Your task to perform on an android device: change the clock display to show seconds Image 0: 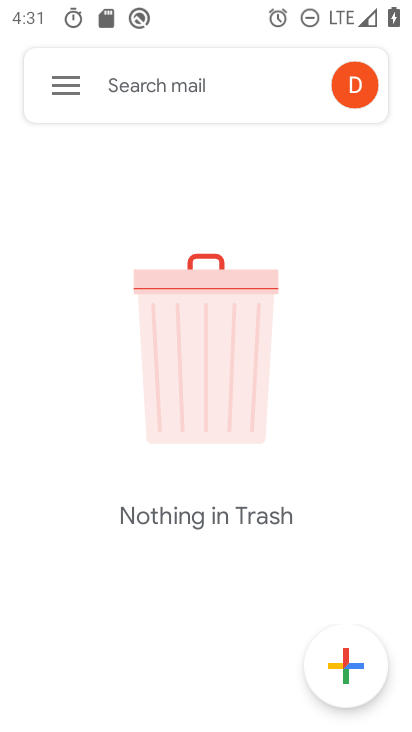
Step 0: press home button
Your task to perform on an android device: change the clock display to show seconds Image 1: 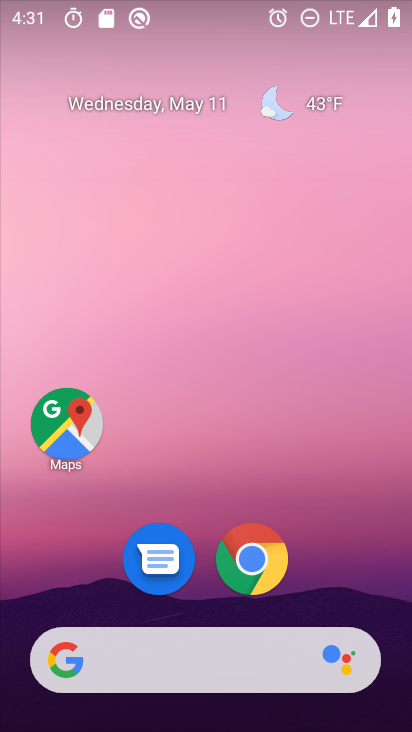
Step 1: drag from (319, 505) to (203, 63)
Your task to perform on an android device: change the clock display to show seconds Image 2: 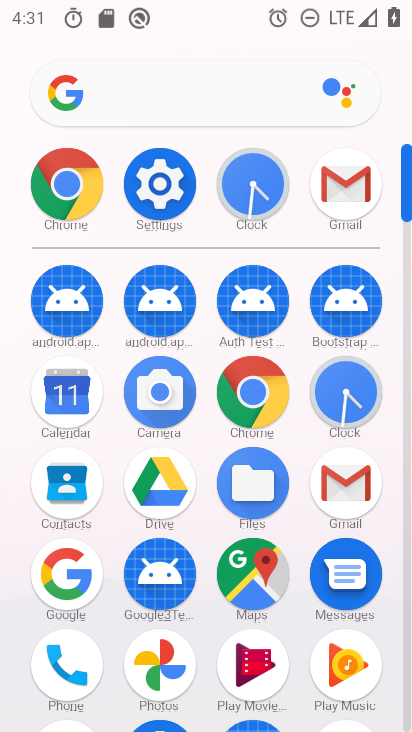
Step 2: click (258, 183)
Your task to perform on an android device: change the clock display to show seconds Image 3: 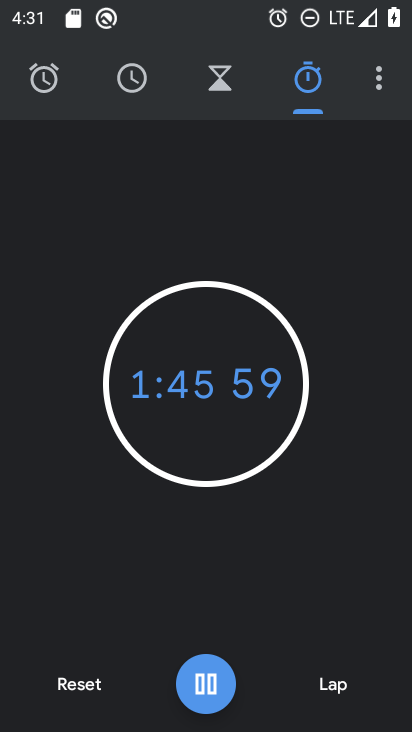
Step 3: click (381, 72)
Your task to perform on an android device: change the clock display to show seconds Image 4: 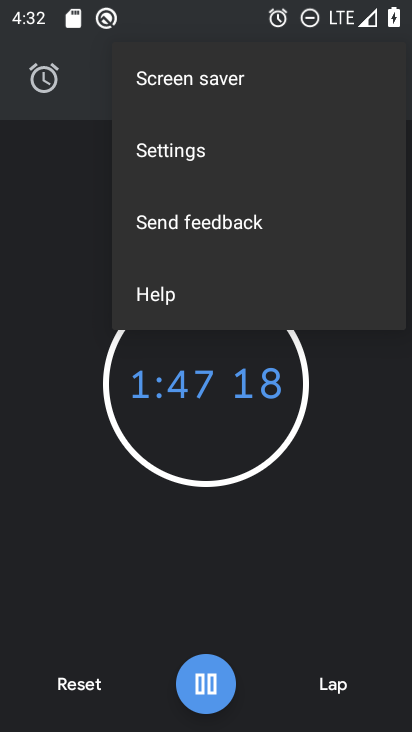
Step 4: click (219, 149)
Your task to perform on an android device: change the clock display to show seconds Image 5: 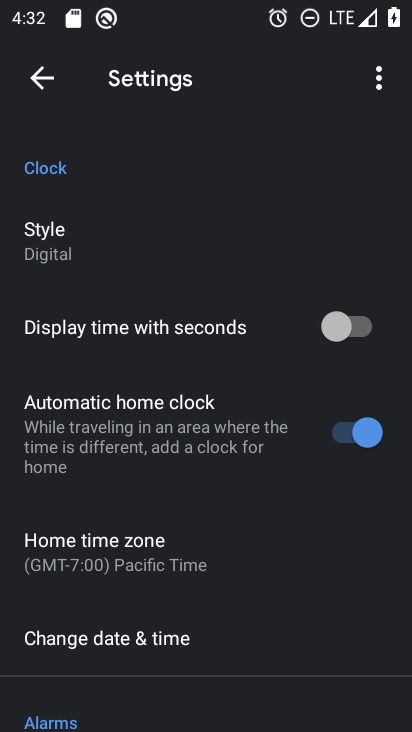
Step 5: click (329, 334)
Your task to perform on an android device: change the clock display to show seconds Image 6: 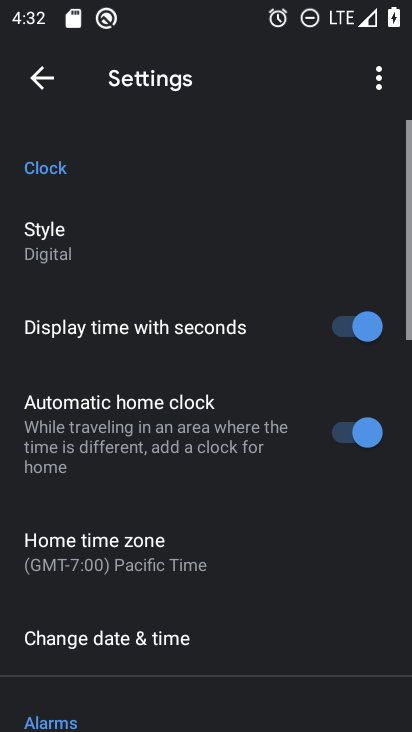
Step 6: task complete